Your task to perform on an android device: all mails in gmail Image 0: 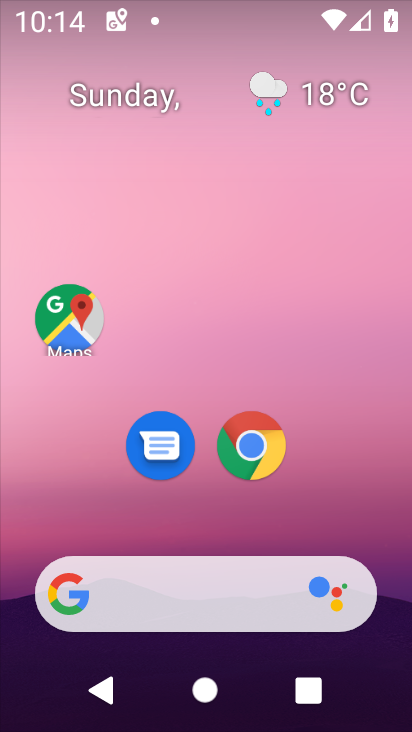
Step 0: drag from (225, 522) to (161, 22)
Your task to perform on an android device: all mails in gmail Image 1: 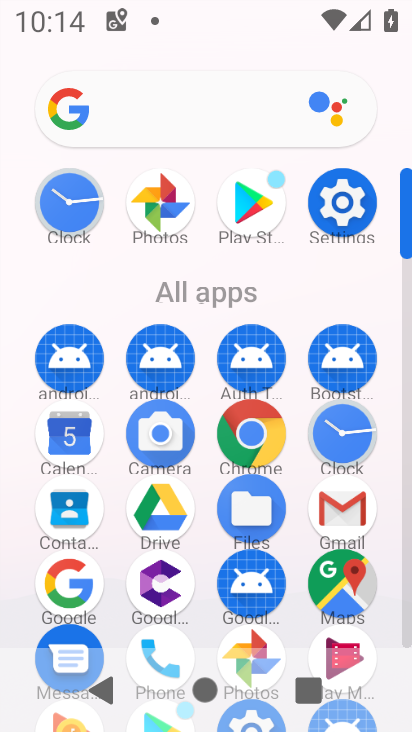
Step 1: click (340, 498)
Your task to perform on an android device: all mails in gmail Image 2: 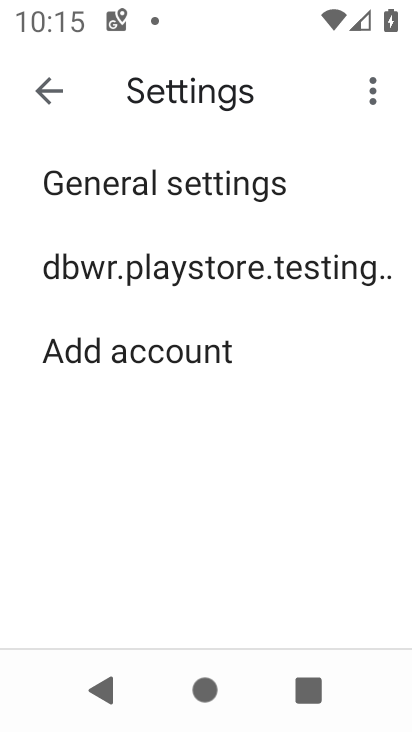
Step 2: click (56, 89)
Your task to perform on an android device: all mails in gmail Image 3: 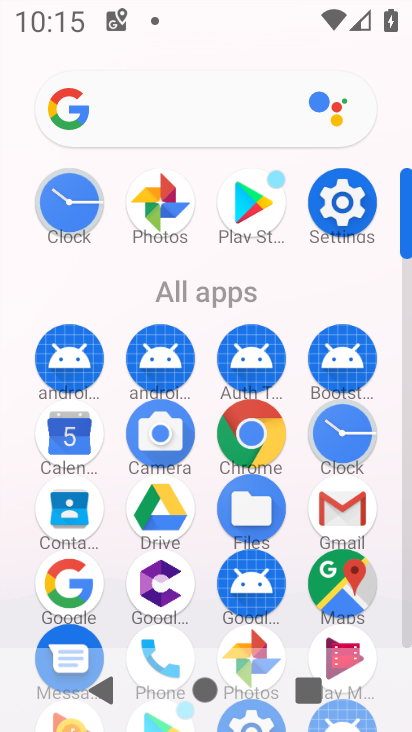
Step 3: click (339, 503)
Your task to perform on an android device: all mails in gmail Image 4: 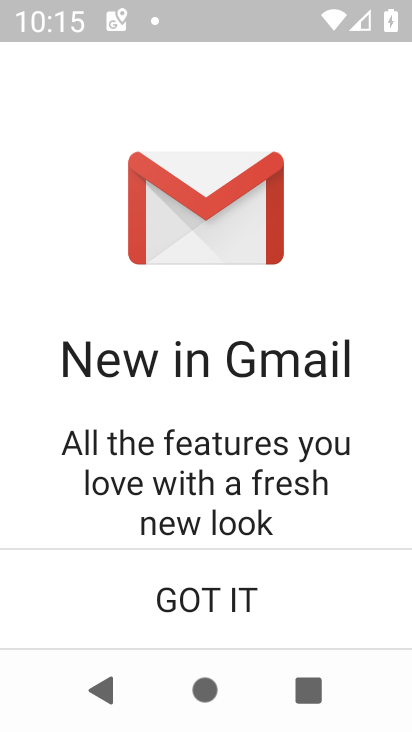
Step 4: click (215, 616)
Your task to perform on an android device: all mails in gmail Image 5: 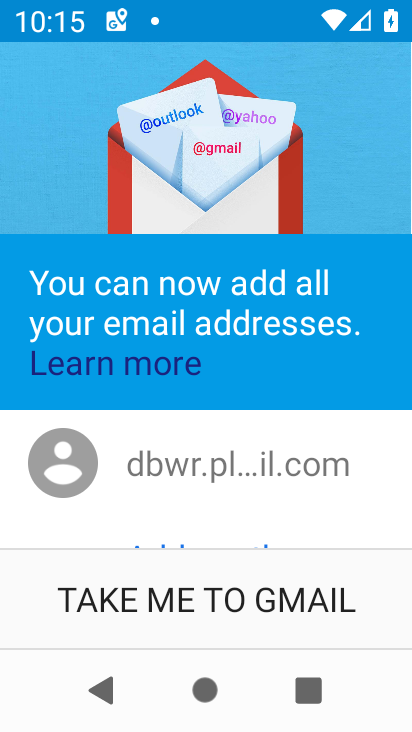
Step 5: click (195, 617)
Your task to perform on an android device: all mails in gmail Image 6: 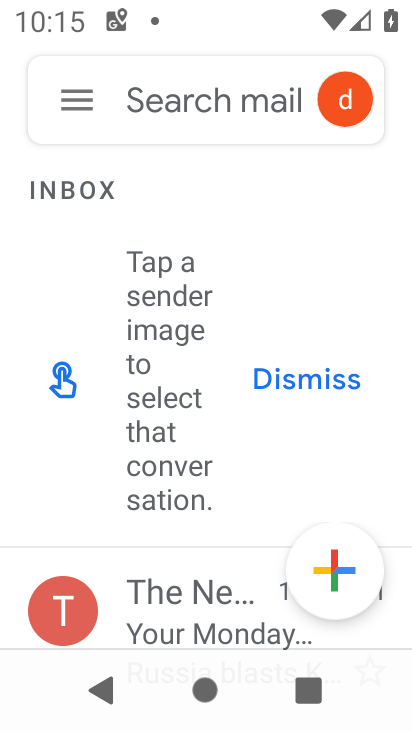
Step 6: click (77, 103)
Your task to perform on an android device: all mails in gmail Image 7: 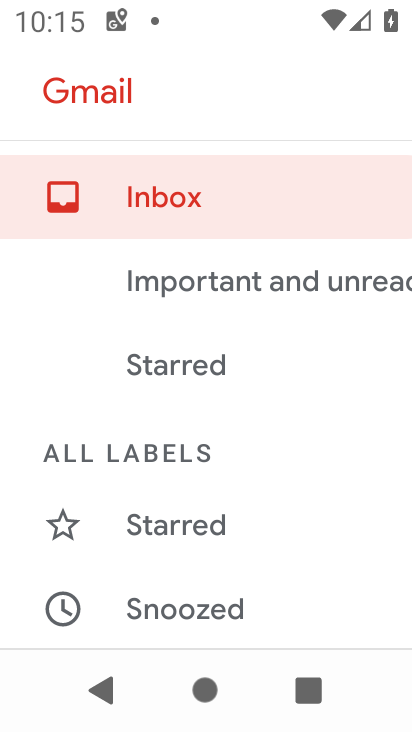
Step 7: drag from (209, 561) to (239, 90)
Your task to perform on an android device: all mails in gmail Image 8: 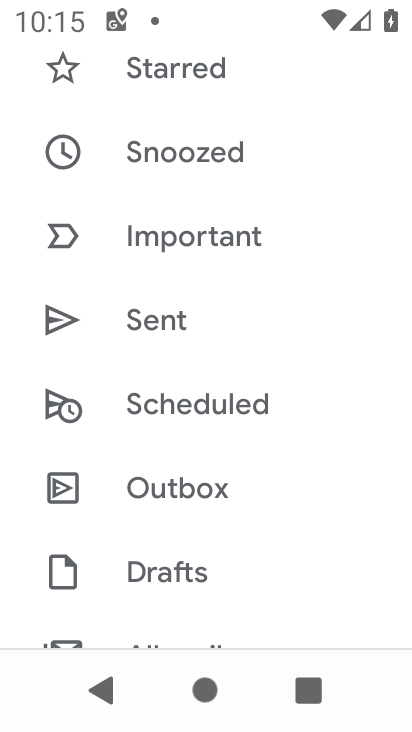
Step 8: drag from (153, 584) to (193, 244)
Your task to perform on an android device: all mails in gmail Image 9: 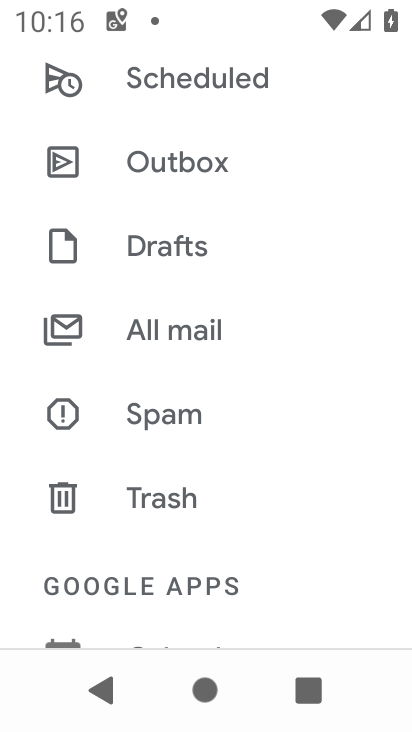
Step 9: click (158, 323)
Your task to perform on an android device: all mails in gmail Image 10: 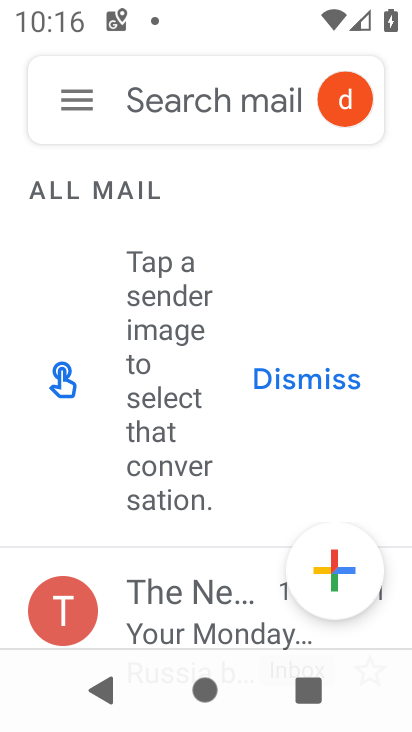
Step 10: task complete